Your task to perform on an android device: toggle notifications settings in the gmail app Image 0: 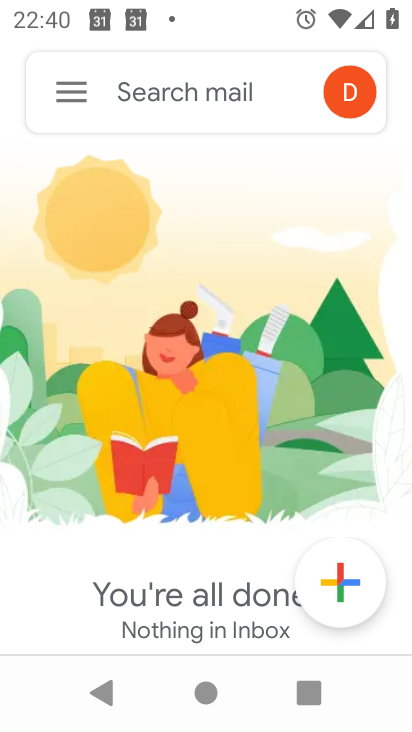
Step 0: press home button
Your task to perform on an android device: toggle notifications settings in the gmail app Image 1: 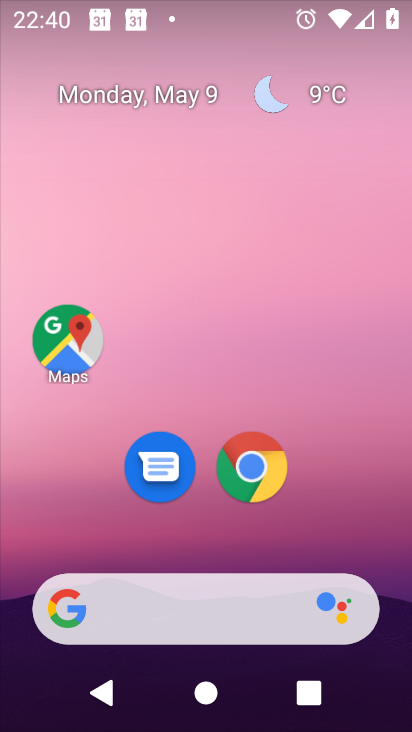
Step 1: drag from (377, 502) to (341, 0)
Your task to perform on an android device: toggle notifications settings in the gmail app Image 2: 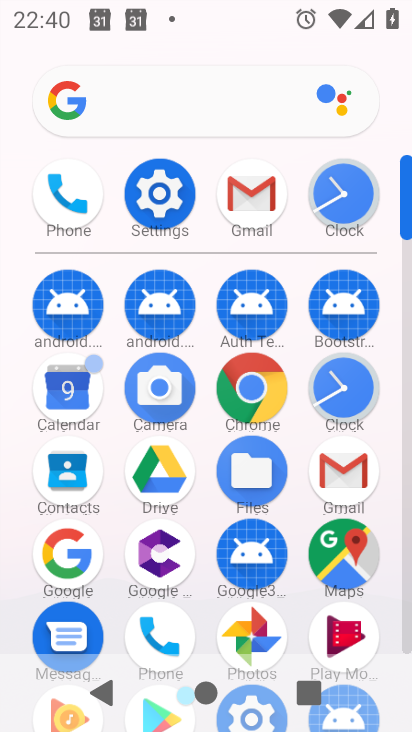
Step 2: click (250, 227)
Your task to perform on an android device: toggle notifications settings in the gmail app Image 3: 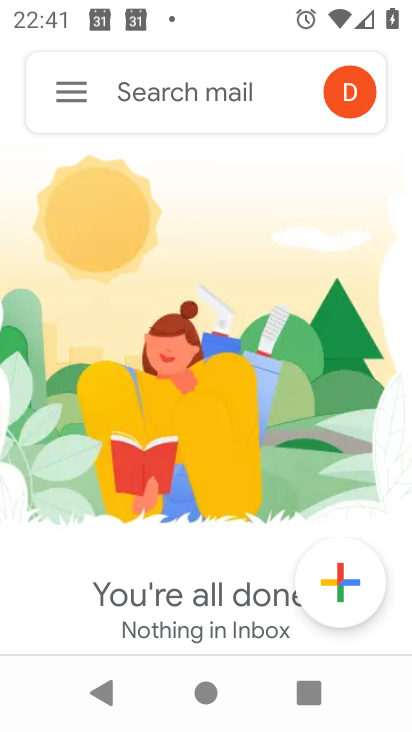
Step 3: click (80, 111)
Your task to perform on an android device: toggle notifications settings in the gmail app Image 4: 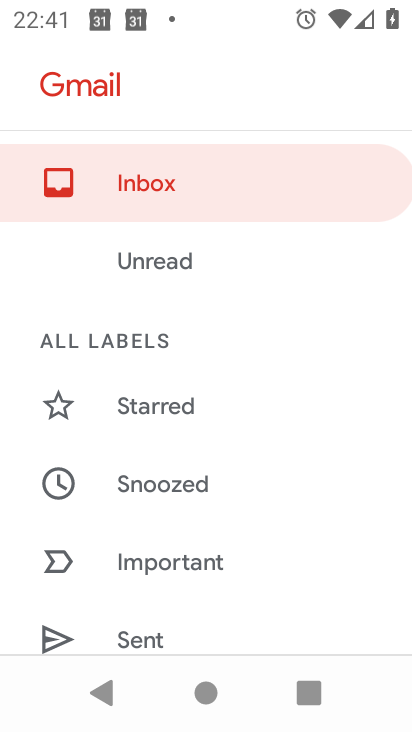
Step 4: drag from (219, 552) to (213, 109)
Your task to perform on an android device: toggle notifications settings in the gmail app Image 5: 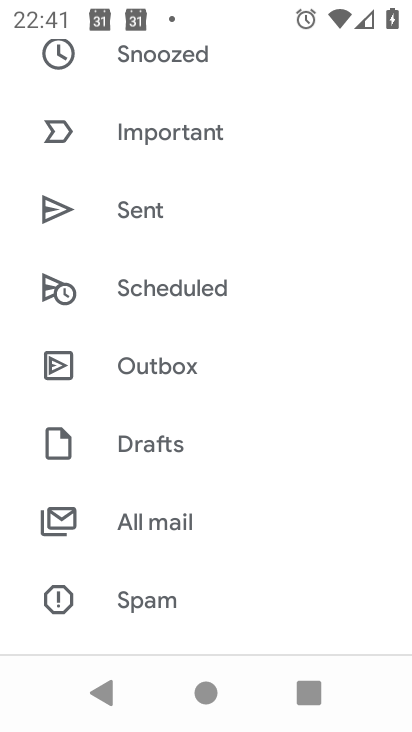
Step 5: drag from (235, 588) to (280, 113)
Your task to perform on an android device: toggle notifications settings in the gmail app Image 6: 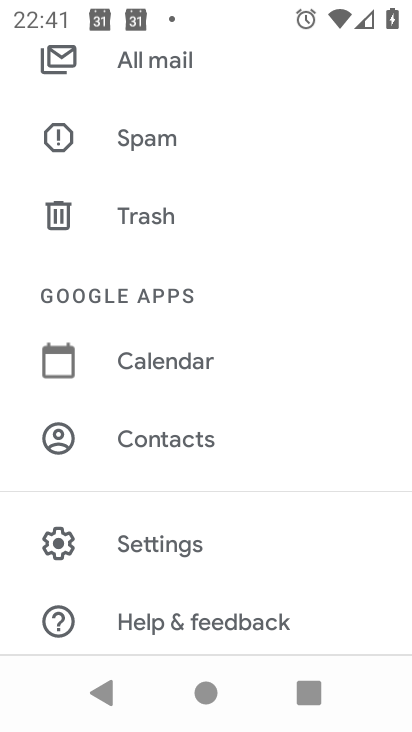
Step 6: click (176, 558)
Your task to perform on an android device: toggle notifications settings in the gmail app Image 7: 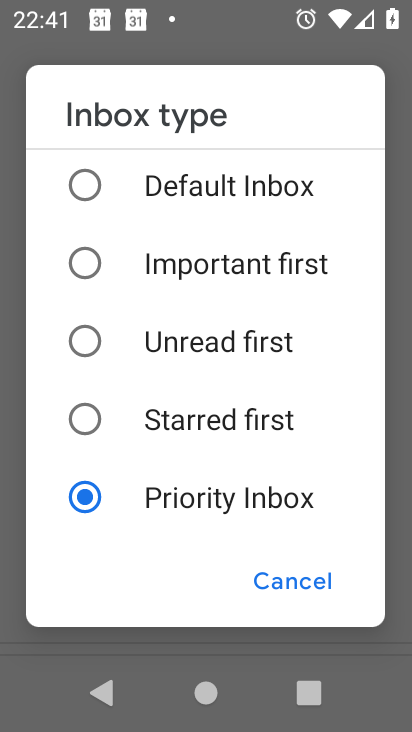
Step 7: click (282, 583)
Your task to perform on an android device: toggle notifications settings in the gmail app Image 8: 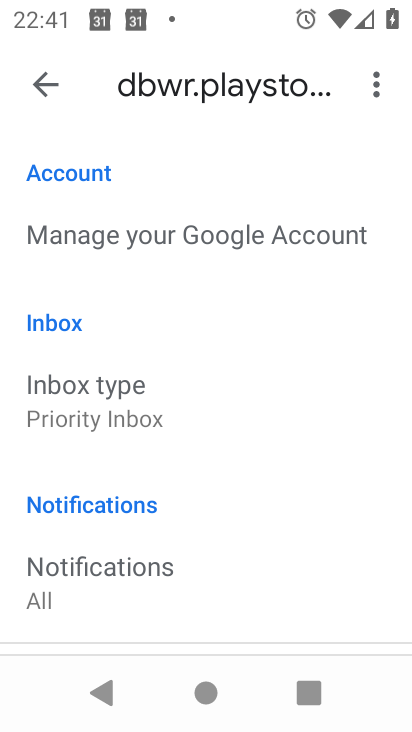
Step 8: click (43, 90)
Your task to perform on an android device: toggle notifications settings in the gmail app Image 9: 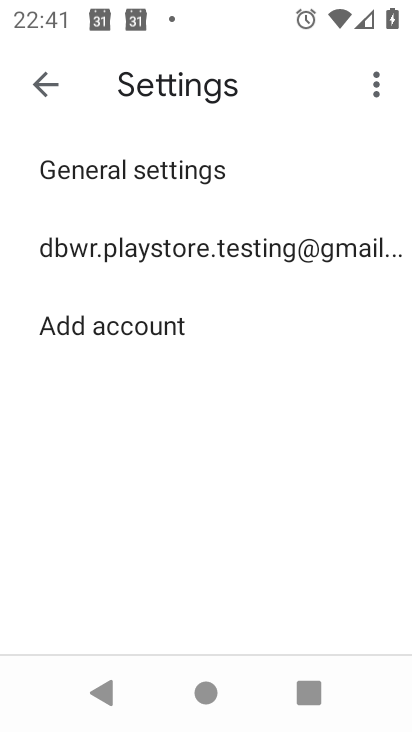
Step 9: click (58, 164)
Your task to perform on an android device: toggle notifications settings in the gmail app Image 10: 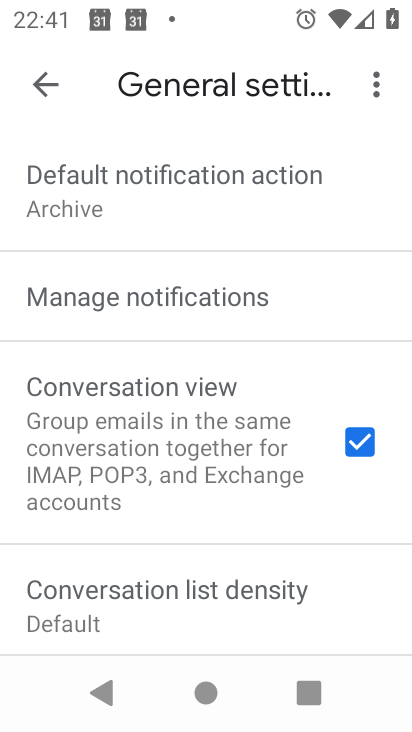
Step 10: click (83, 307)
Your task to perform on an android device: toggle notifications settings in the gmail app Image 11: 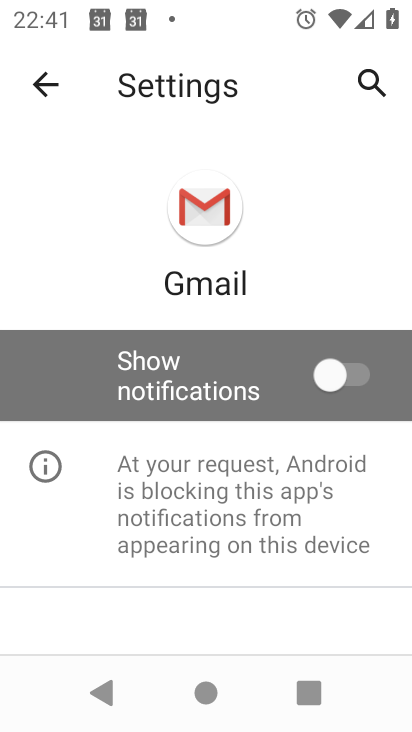
Step 11: click (323, 374)
Your task to perform on an android device: toggle notifications settings in the gmail app Image 12: 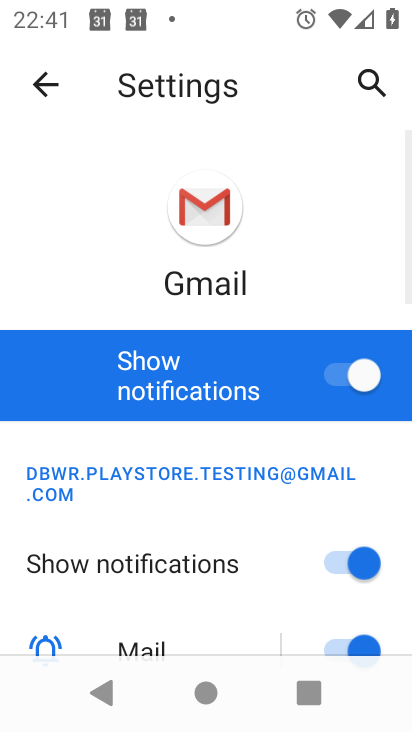
Step 12: task complete